Your task to perform on an android device: toggle wifi Image 0: 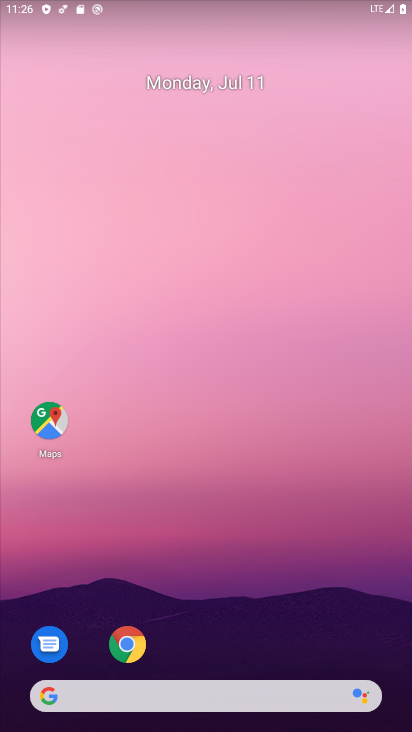
Step 0: click (133, 645)
Your task to perform on an android device: toggle wifi Image 1: 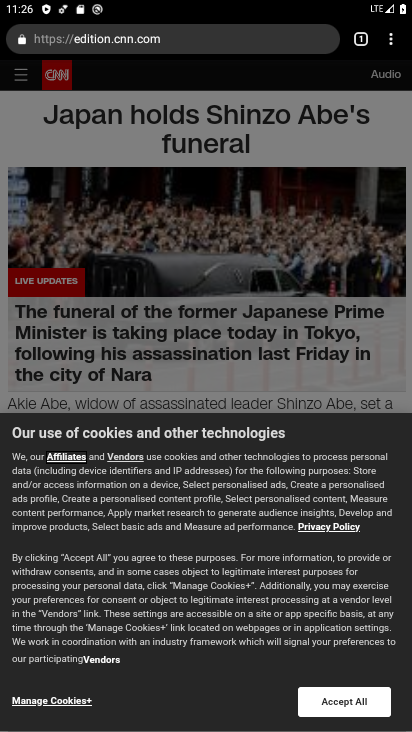
Step 1: press home button
Your task to perform on an android device: toggle wifi Image 2: 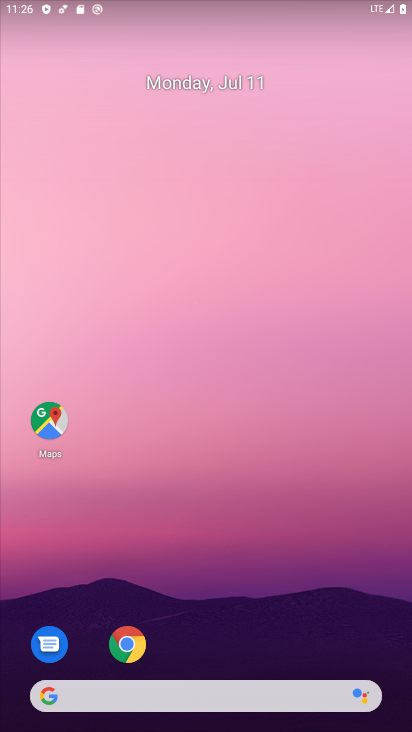
Step 2: drag from (384, 653) to (300, 34)
Your task to perform on an android device: toggle wifi Image 3: 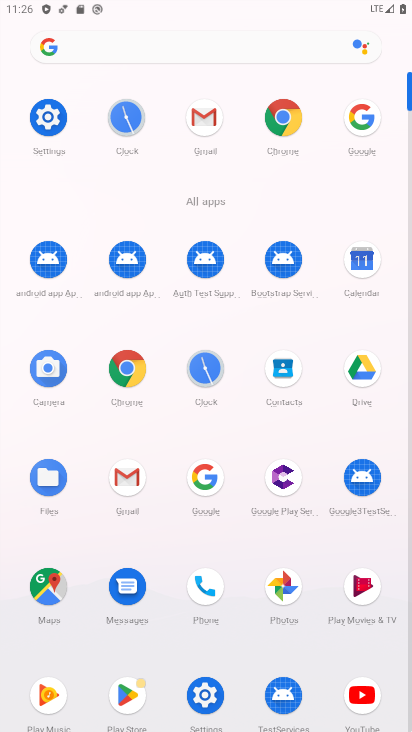
Step 3: drag from (44, 108) to (172, 447)
Your task to perform on an android device: toggle wifi Image 4: 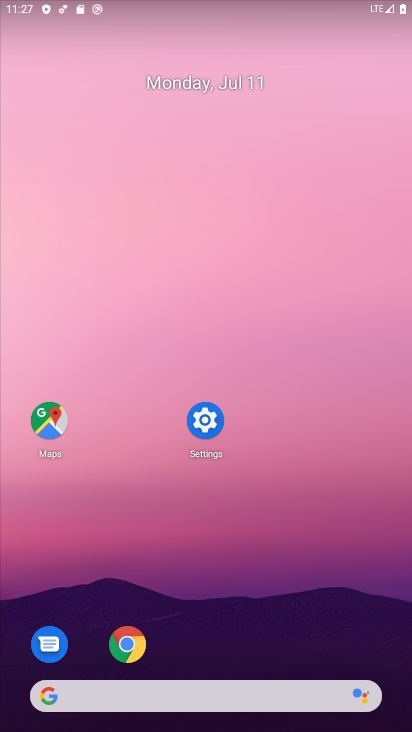
Step 4: click (204, 400)
Your task to perform on an android device: toggle wifi Image 5: 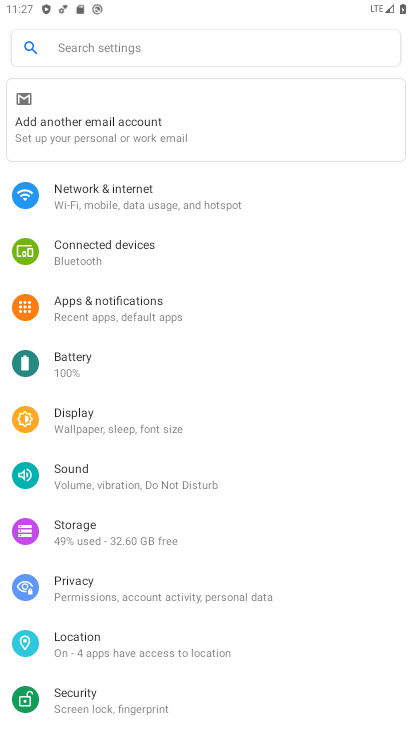
Step 5: click (128, 190)
Your task to perform on an android device: toggle wifi Image 6: 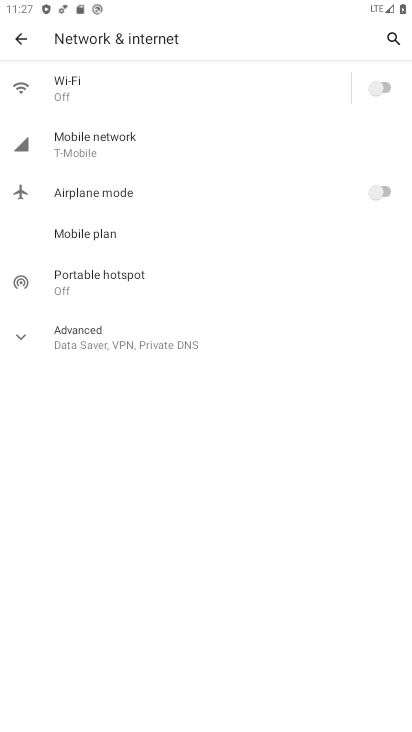
Step 6: click (388, 84)
Your task to perform on an android device: toggle wifi Image 7: 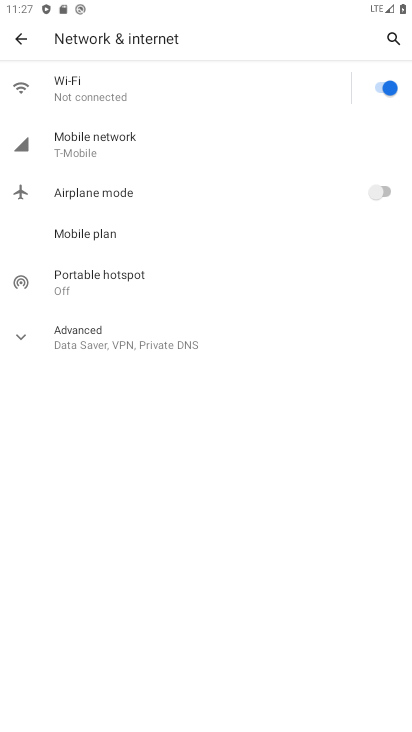
Step 7: task complete